Your task to perform on an android device: When is my next appointment? Image 0: 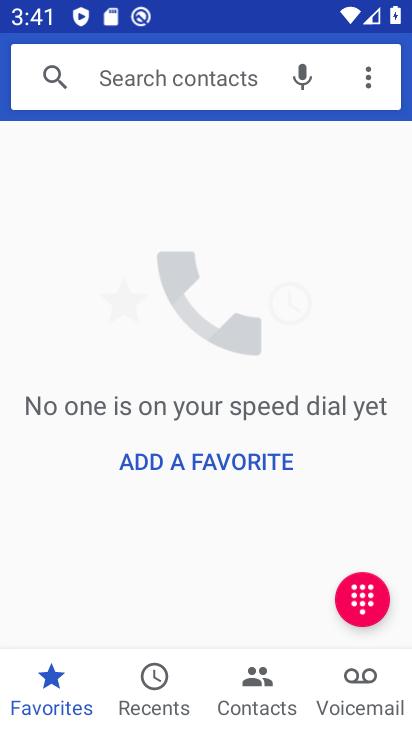
Step 0: press home button
Your task to perform on an android device: When is my next appointment? Image 1: 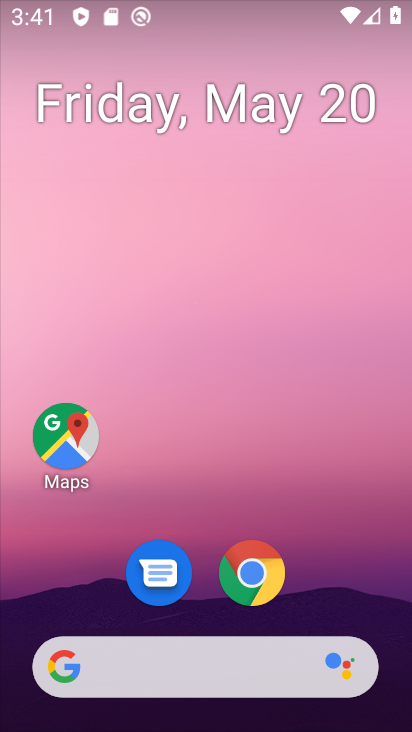
Step 1: drag from (378, 613) to (280, 243)
Your task to perform on an android device: When is my next appointment? Image 2: 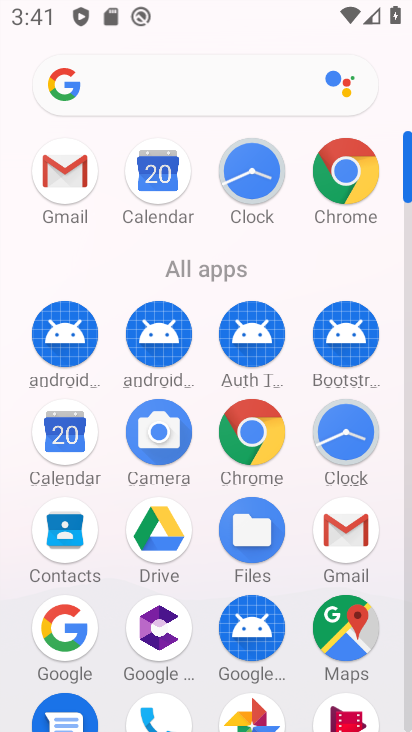
Step 2: click (168, 175)
Your task to perform on an android device: When is my next appointment? Image 3: 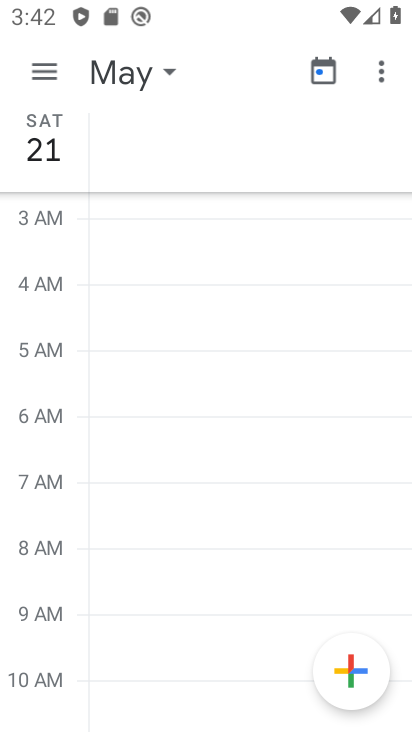
Step 3: click (120, 79)
Your task to perform on an android device: When is my next appointment? Image 4: 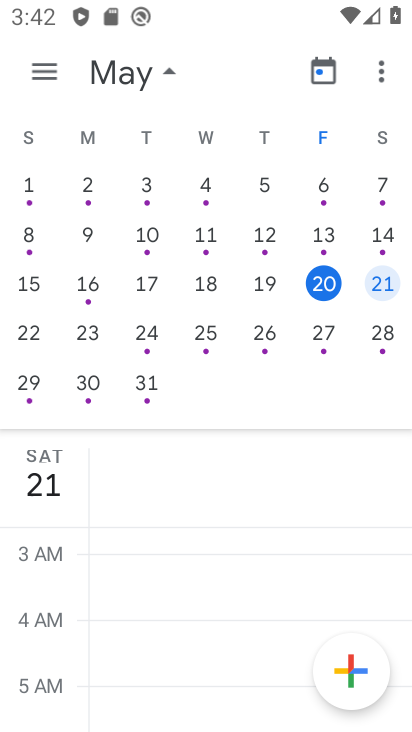
Step 4: click (321, 283)
Your task to perform on an android device: When is my next appointment? Image 5: 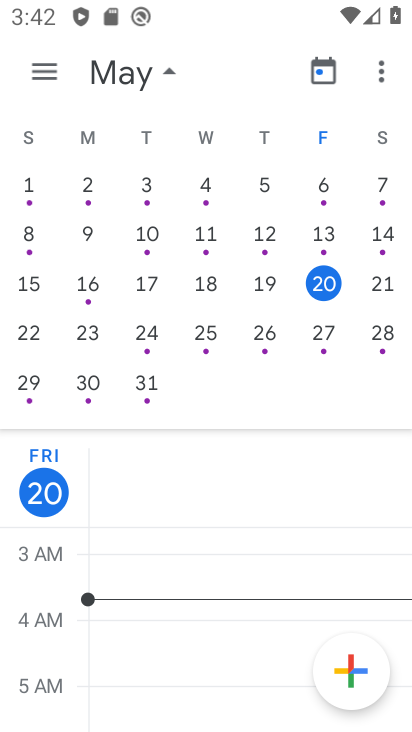
Step 5: click (150, 72)
Your task to perform on an android device: When is my next appointment? Image 6: 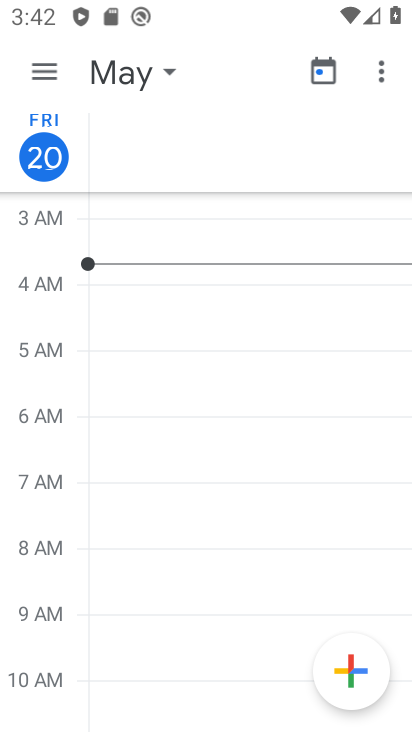
Step 6: task complete